Your task to perform on an android device: What's the weather today? Image 0: 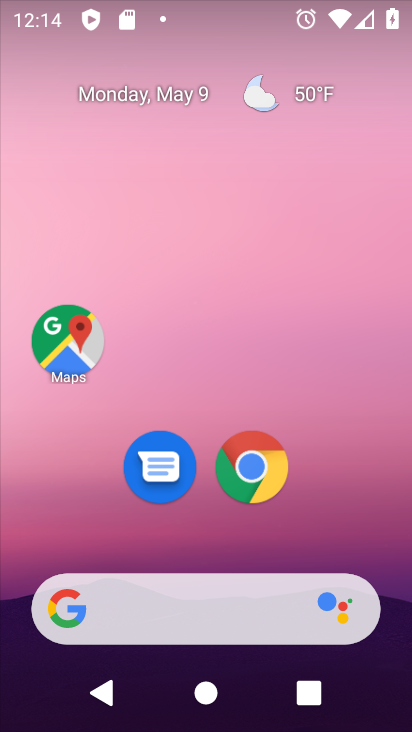
Step 0: click (248, 25)
Your task to perform on an android device: What's the weather today? Image 1: 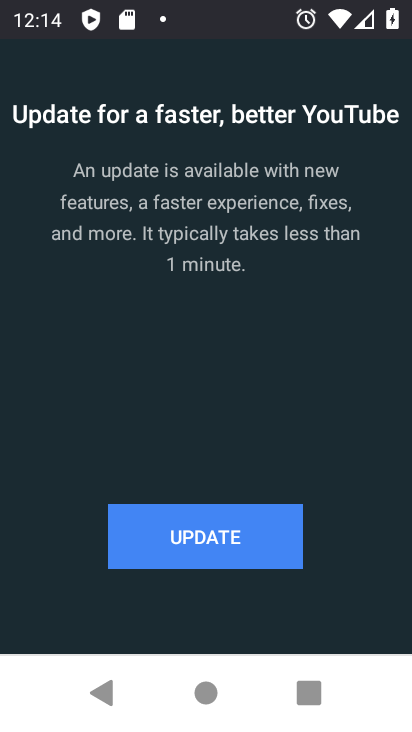
Step 1: press home button
Your task to perform on an android device: What's the weather today? Image 2: 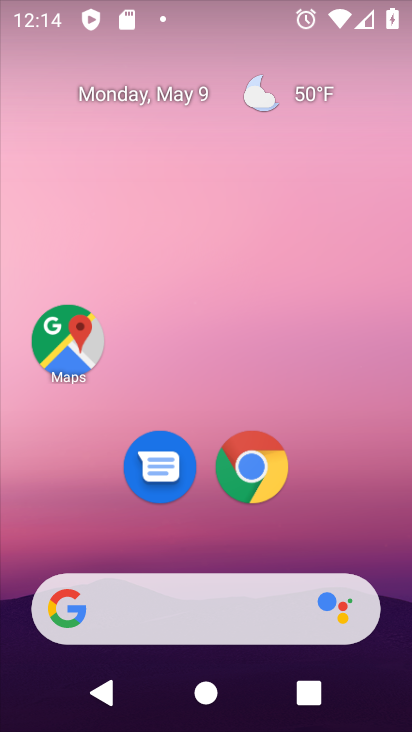
Step 2: drag from (206, 544) to (218, 77)
Your task to perform on an android device: What's the weather today? Image 3: 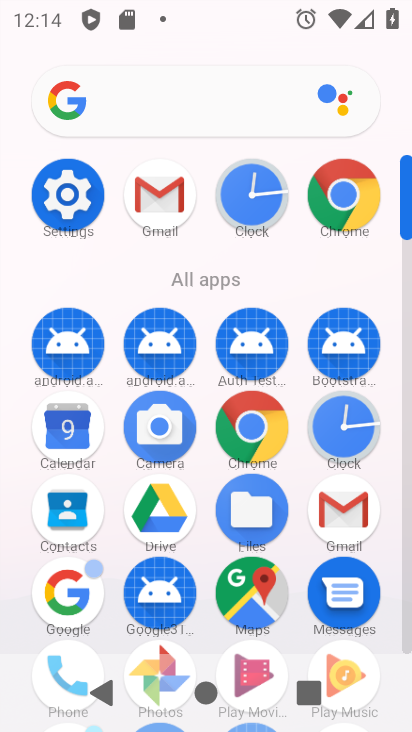
Step 3: click (61, 584)
Your task to perform on an android device: What's the weather today? Image 4: 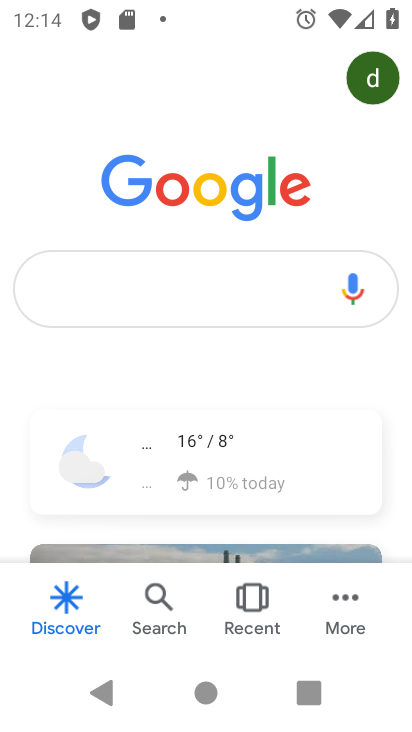
Step 4: drag from (207, 521) to (240, 35)
Your task to perform on an android device: What's the weather today? Image 5: 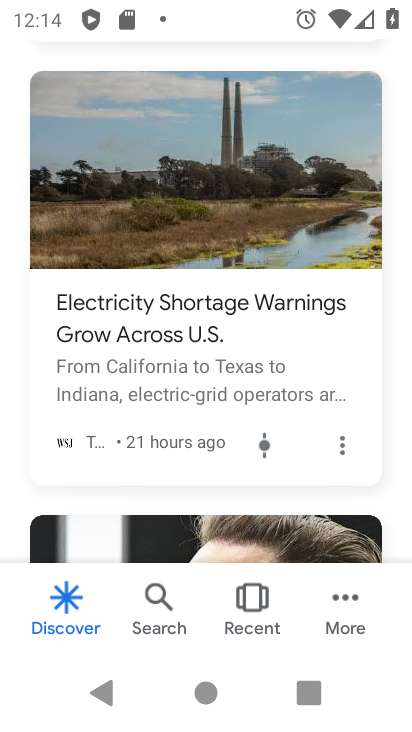
Step 5: drag from (208, 208) to (248, 581)
Your task to perform on an android device: What's the weather today? Image 6: 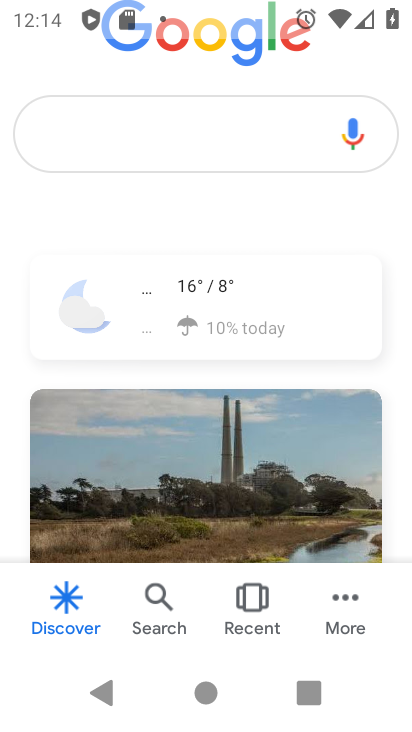
Step 6: click (202, 290)
Your task to perform on an android device: What's the weather today? Image 7: 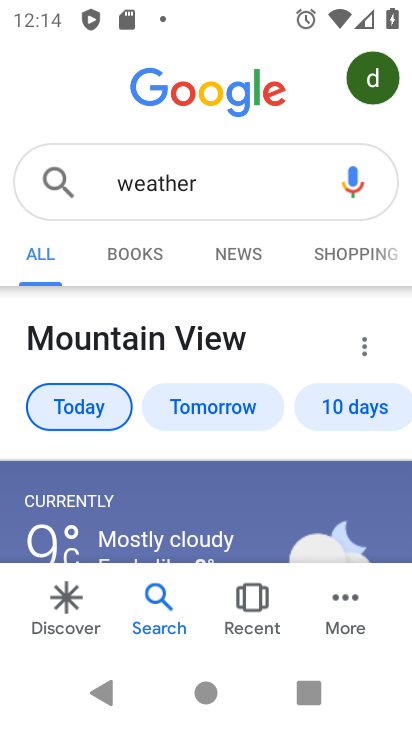
Step 7: task complete